Your task to perform on an android device: clear history in the chrome app Image 0: 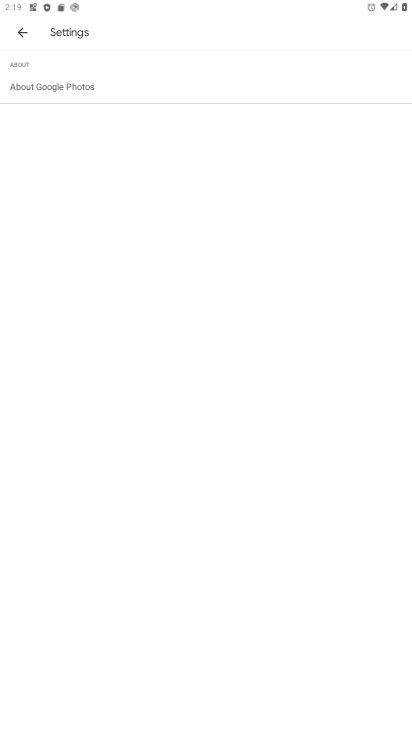
Step 0: press home button
Your task to perform on an android device: clear history in the chrome app Image 1: 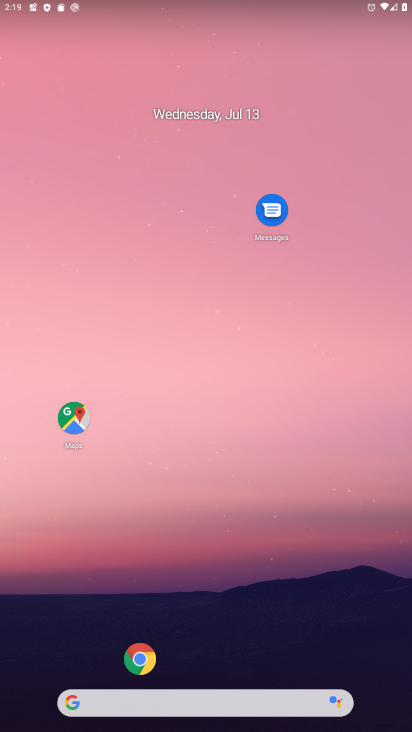
Step 1: click (139, 652)
Your task to perform on an android device: clear history in the chrome app Image 2: 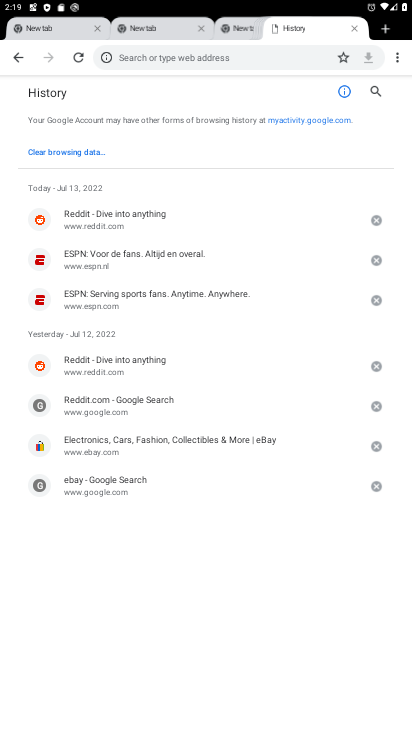
Step 2: click (392, 57)
Your task to perform on an android device: clear history in the chrome app Image 3: 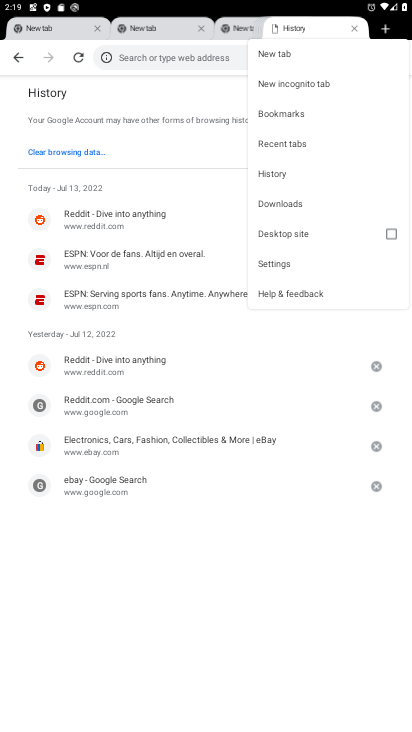
Step 3: click (280, 175)
Your task to perform on an android device: clear history in the chrome app Image 4: 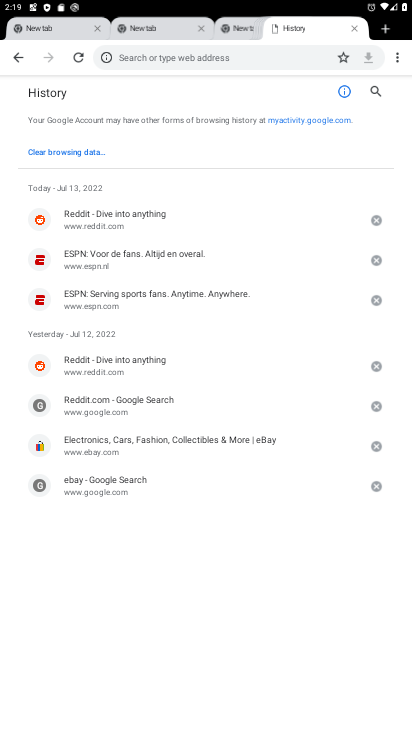
Step 4: click (63, 142)
Your task to perform on an android device: clear history in the chrome app Image 5: 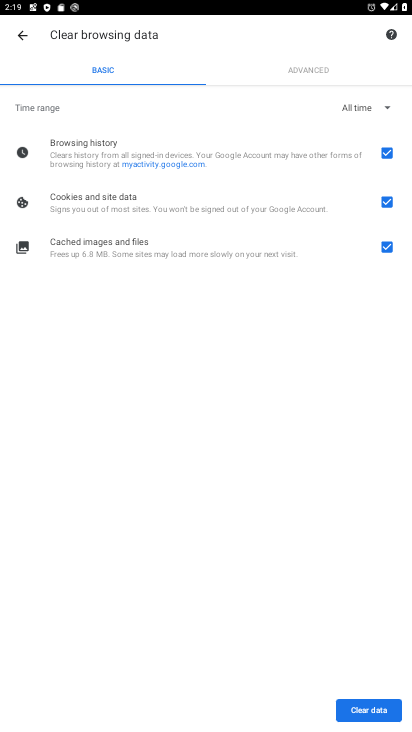
Step 5: click (377, 704)
Your task to perform on an android device: clear history in the chrome app Image 6: 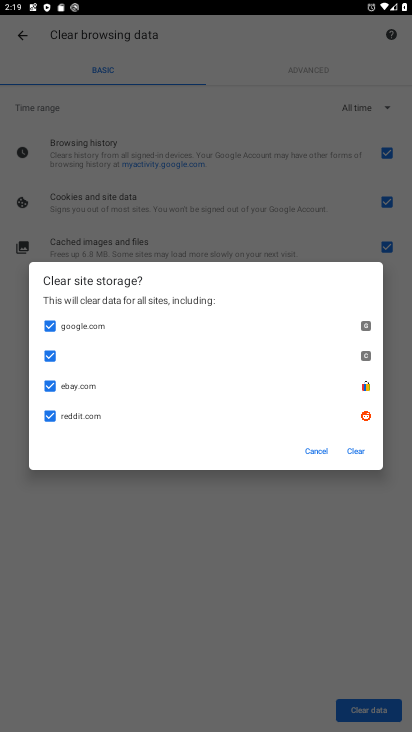
Step 6: click (364, 446)
Your task to perform on an android device: clear history in the chrome app Image 7: 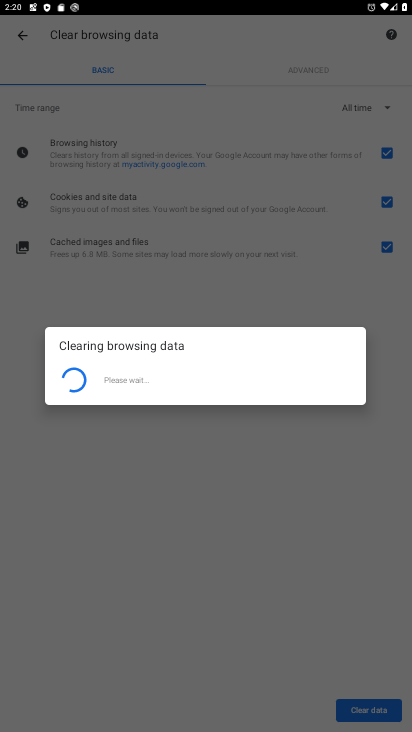
Step 7: task complete